Your task to perform on an android device: toggle show notifications on the lock screen Image 0: 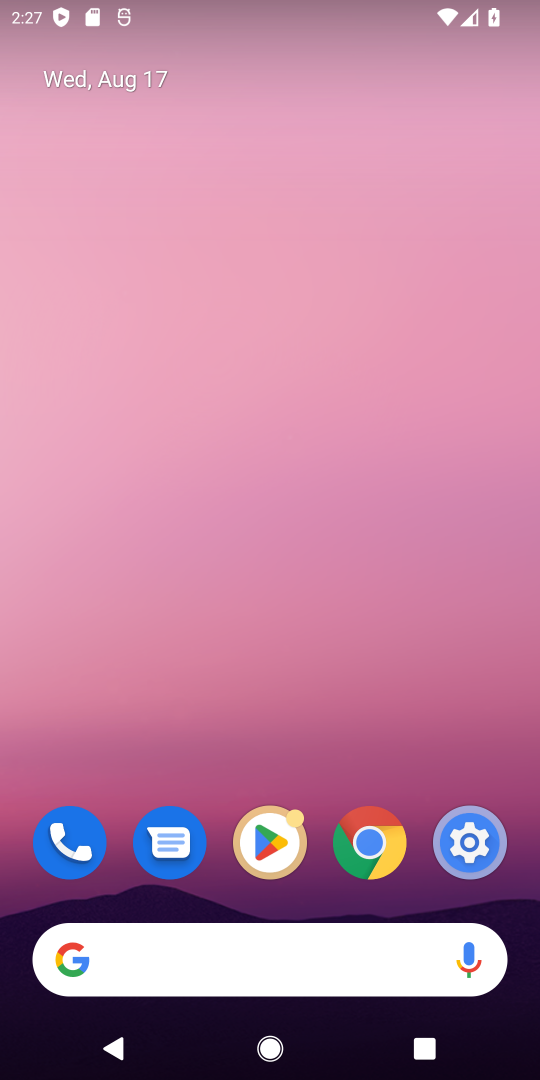
Step 0: drag from (440, 887) to (174, 16)
Your task to perform on an android device: toggle show notifications on the lock screen Image 1: 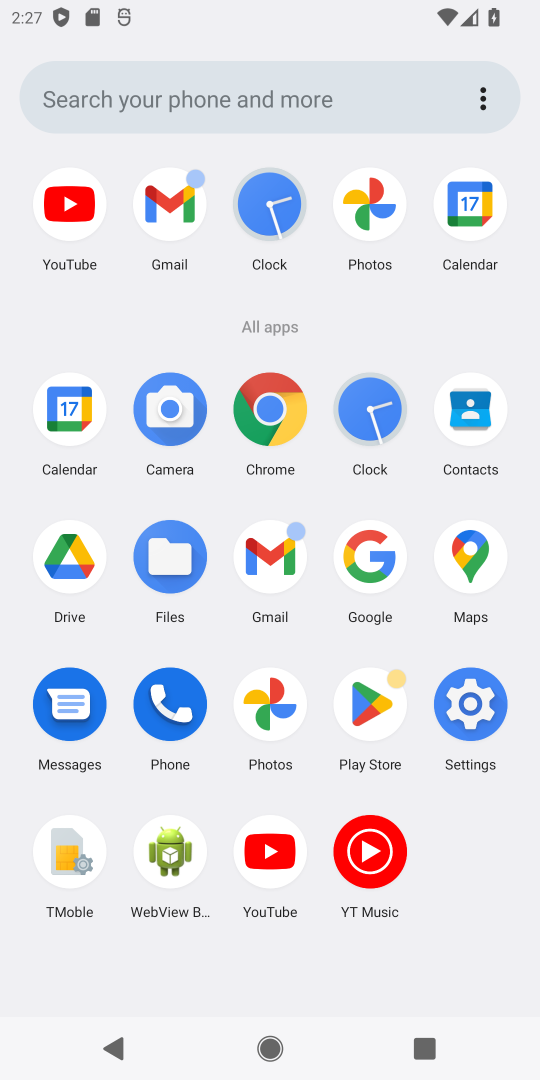
Step 1: click (458, 717)
Your task to perform on an android device: toggle show notifications on the lock screen Image 2: 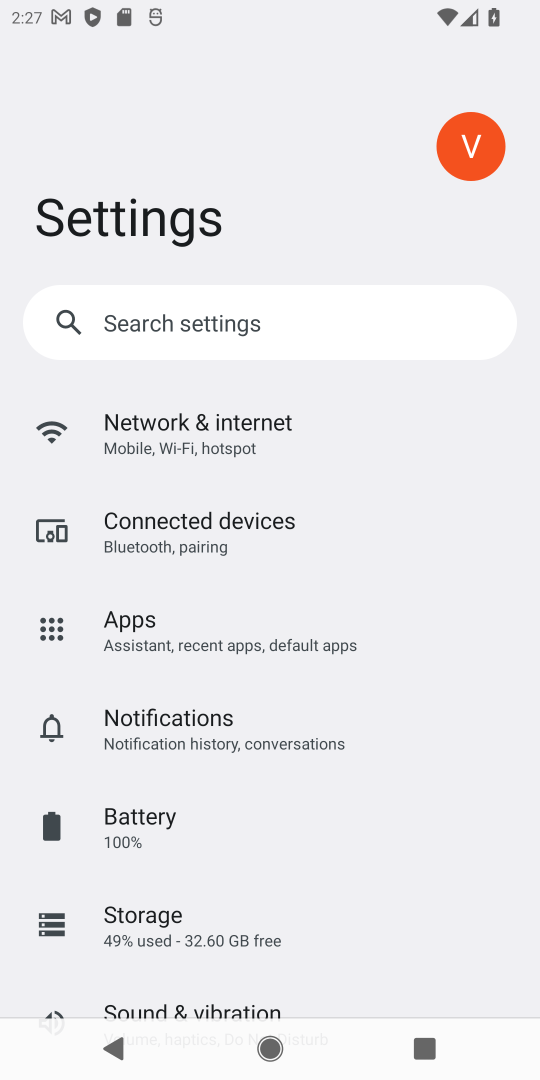
Step 2: click (146, 711)
Your task to perform on an android device: toggle show notifications on the lock screen Image 3: 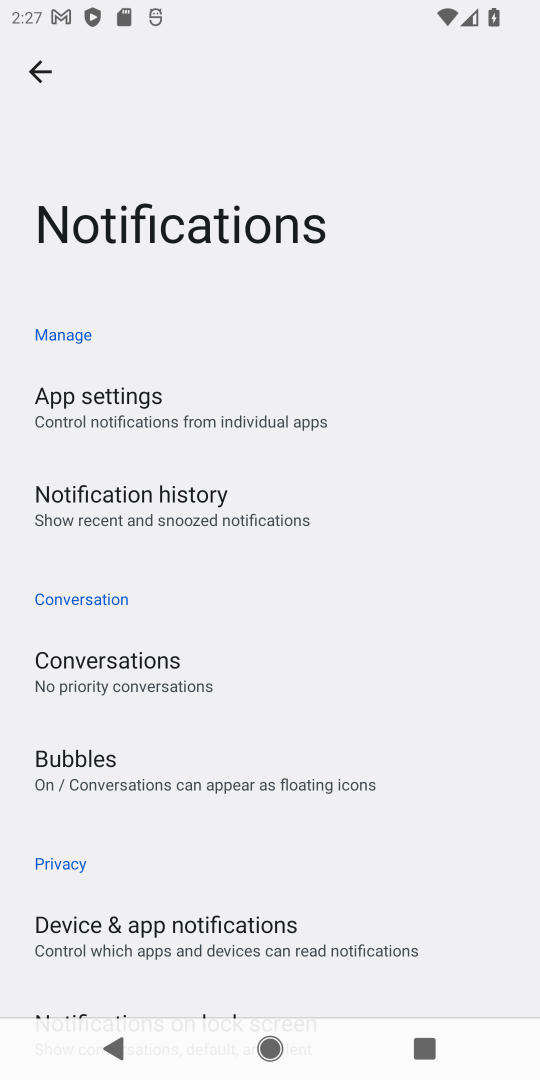
Step 3: drag from (219, 945) to (220, 206)
Your task to perform on an android device: toggle show notifications on the lock screen Image 4: 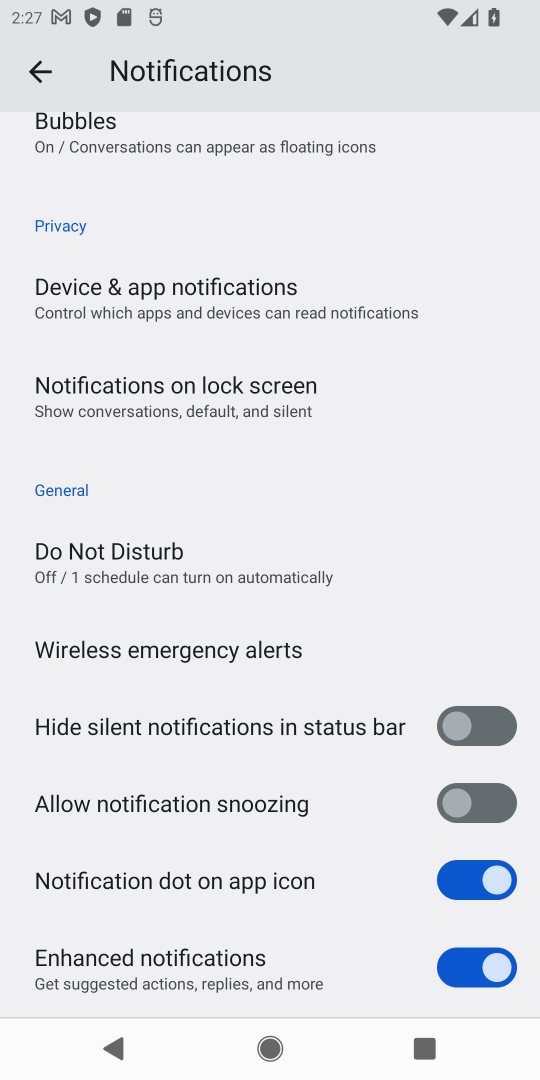
Step 4: click (259, 387)
Your task to perform on an android device: toggle show notifications on the lock screen Image 5: 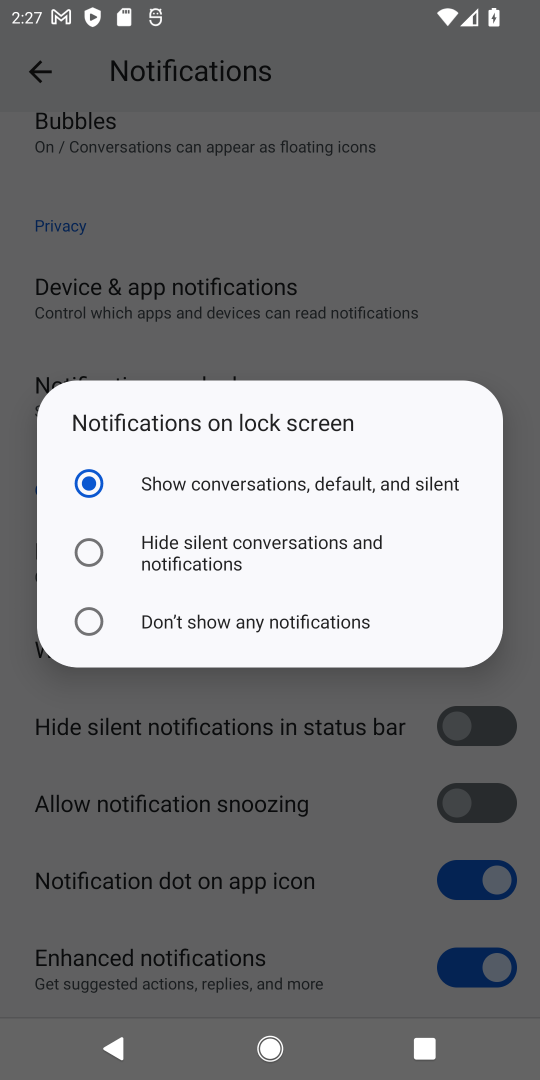
Step 5: click (109, 551)
Your task to perform on an android device: toggle show notifications on the lock screen Image 6: 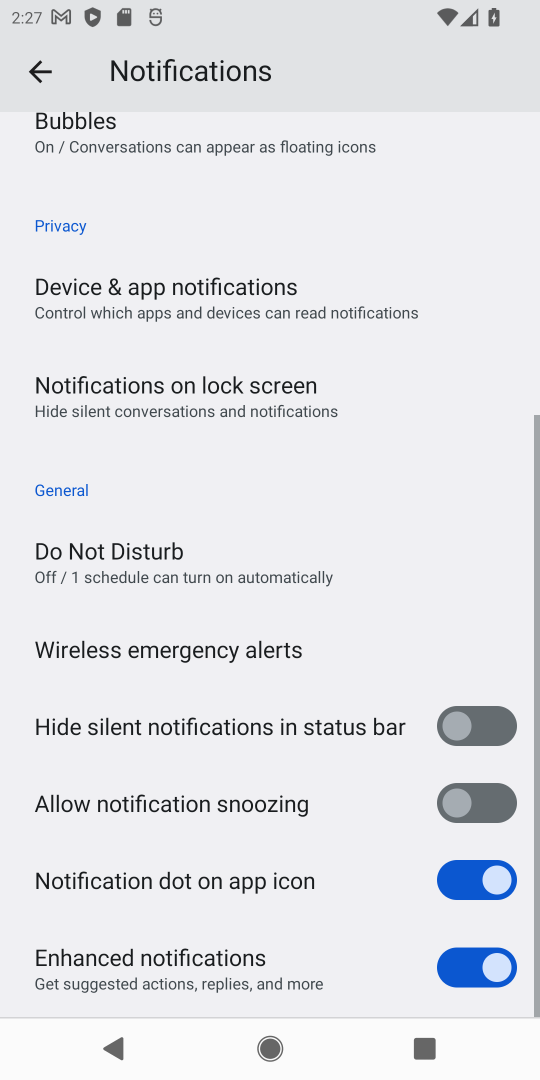
Step 6: task complete